Your task to perform on an android device: Open Google Chrome and click the shortcut for Amazon.com Image 0: 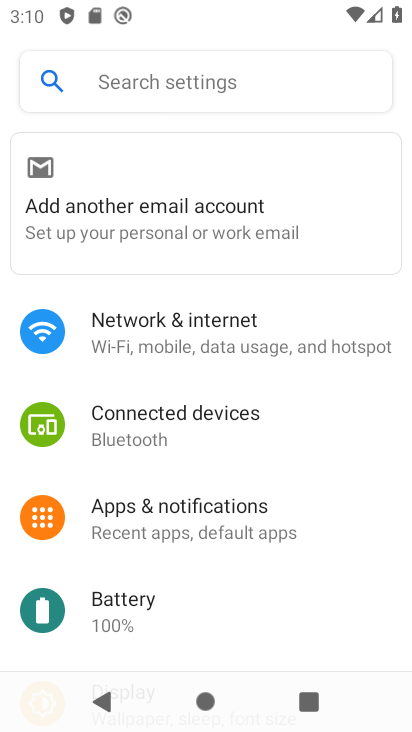
Step 0: press home button
Your task to perform on an android device: Open Google Chrome and click the shortcut for Amazon.com Image 1: 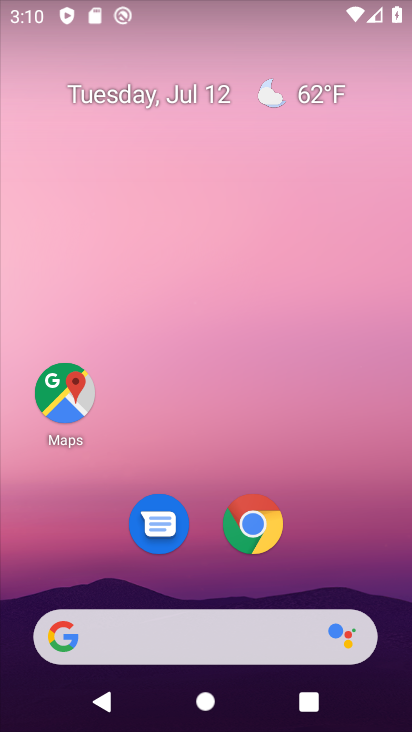
Step 1: click (273, 523)
Your task to perform on an android device: Open Google Chrome and click the shortcut for Amazon.com Image 2: 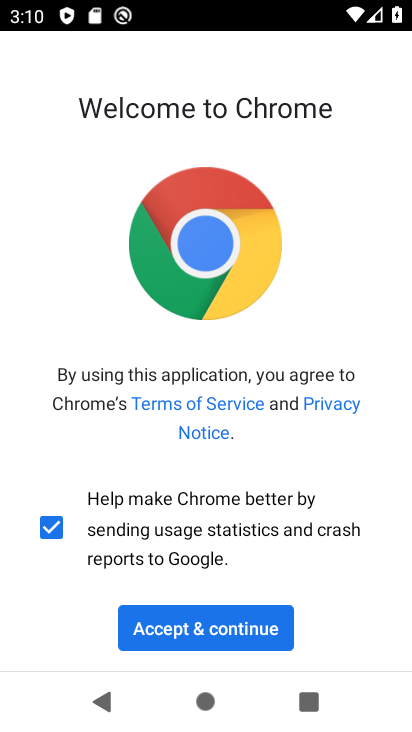
Step 2: click (255, 621)
Your task to perform on an android device: Open Google Chrome and click the shortcut for Amazon.com Image 3: 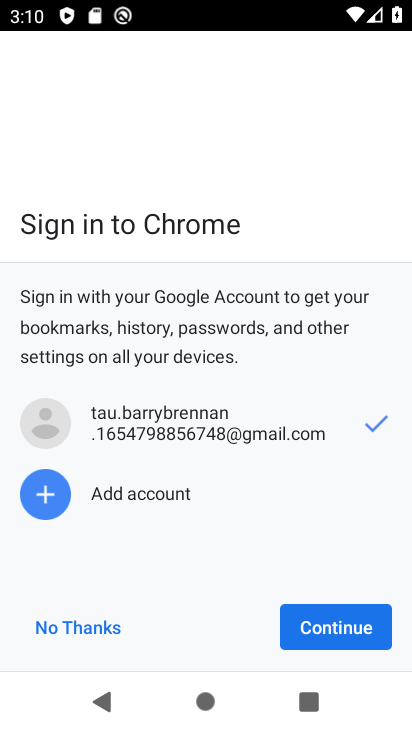
Step 3: click (311, 614)
Your task to perform on an android device: Open Google Chrome and click the shortcut for Amazon.com Image 4: 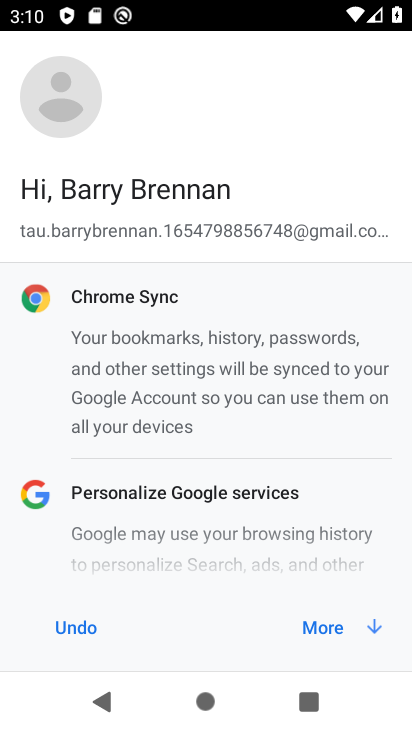
Step 4: click (314, 626)
Your task to perform on an android device: Open Google Chrome and click the shortcut for Amazon.com Image 5: 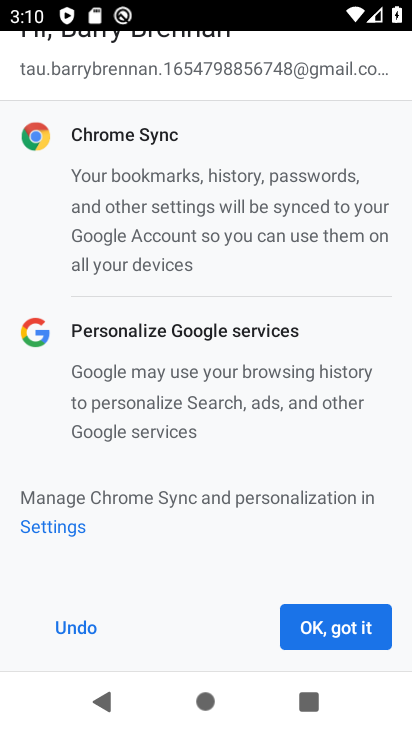
Step 5: click (314, 626)
Your task to perform on an android device: Open Google Chrome and click the shortcut for Amazon.com Image 6: 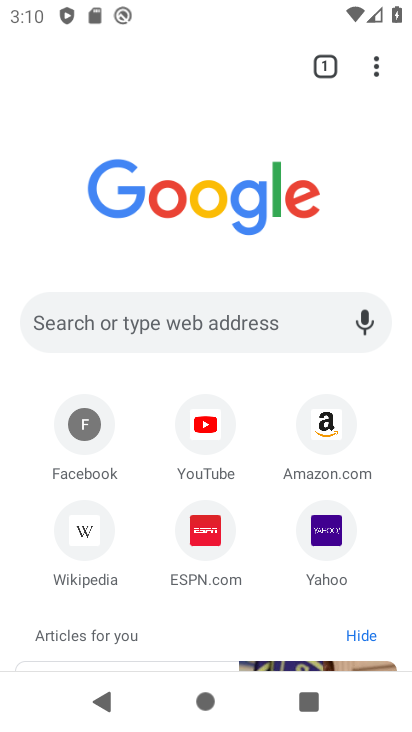
Step 6: click (323, 411)
Your task to perform on an android device: Open Google Chrome and click the shortcut for Amazon.com Image 7: 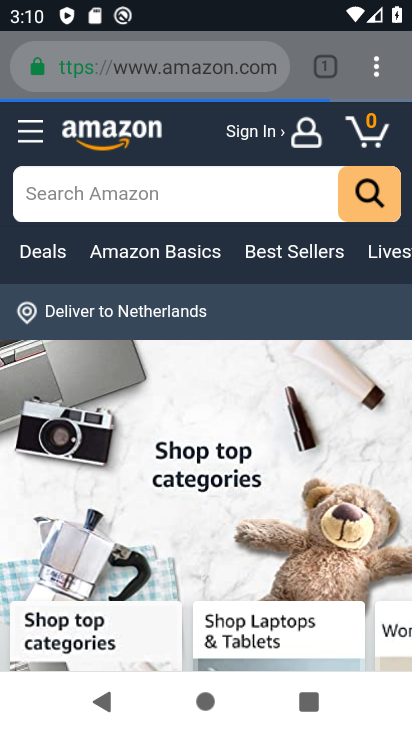
Step 7: task complete